Your task to perform on an android device: Open Google Chrome and open the bookmarks view Image 0: 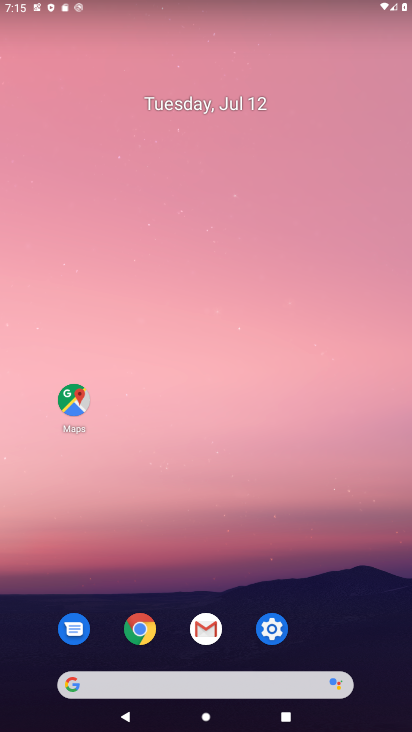
Step 0: click (154, 627)
Your task to perform on an android device: Open Google Chrome and open the bookmarks view Image 1: 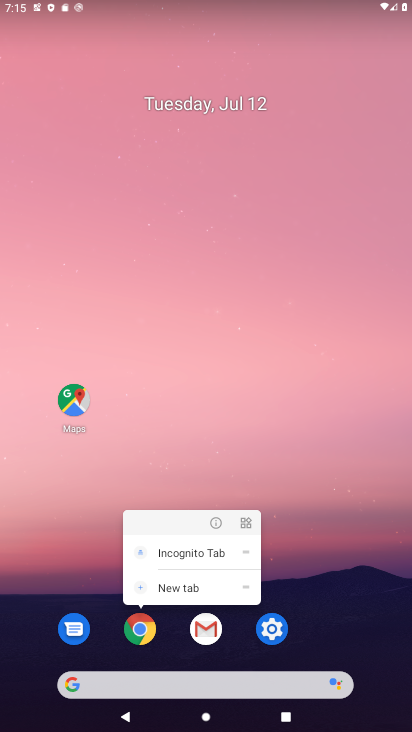
Step 1: click (145, 636)
Your task to perform on an android device: Open Google Chrome and open the bookmarks view Image 2: 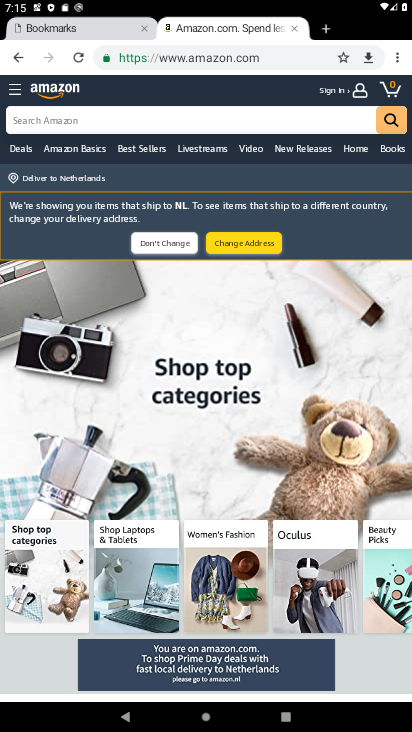
Step 2: click (394, 58)
Your task to perform on an android device: Open Google Chrome and open the bookmarks view Image 3: 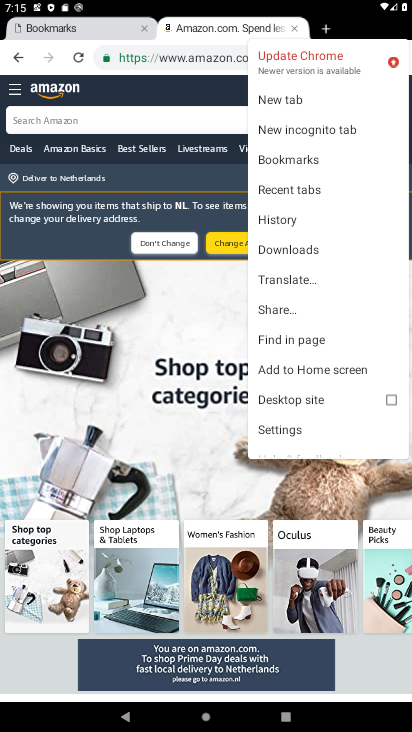
Step 3: click (309, 163)
Your task to perform on an android device: Open Google Chrome and open the bookmarks view Image 4: 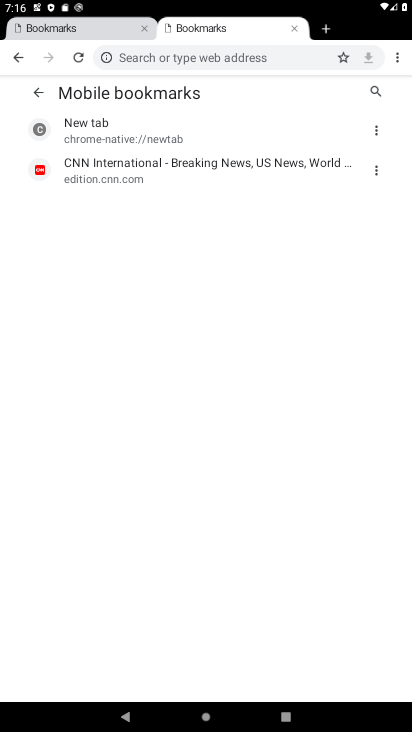
Step 4: task complete